Your task to perform on an android device: change timer sound Image 0: 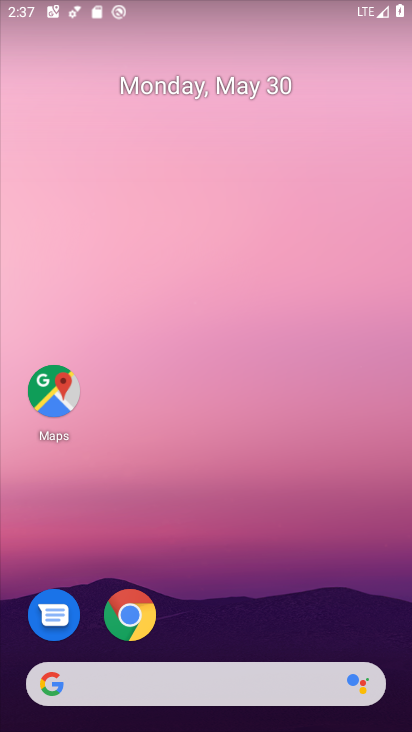
Step 0: drag from (246, 582) to (286, 40)
Your task to perform on an android device: change timer sound Image 1: 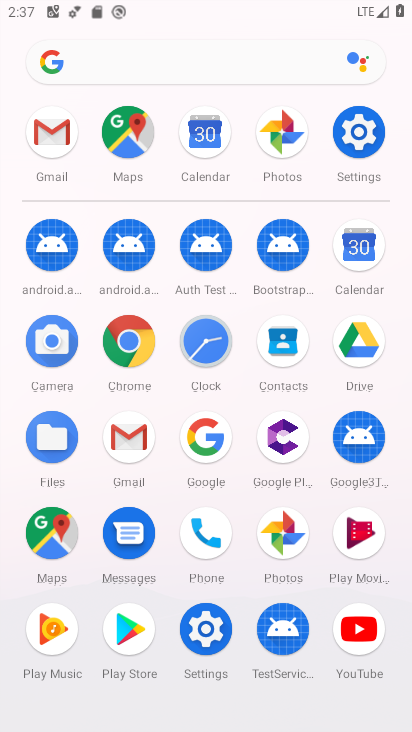
Step 1: click (350, 134)
Your task to perform on an android device: change timer sound Image 2: 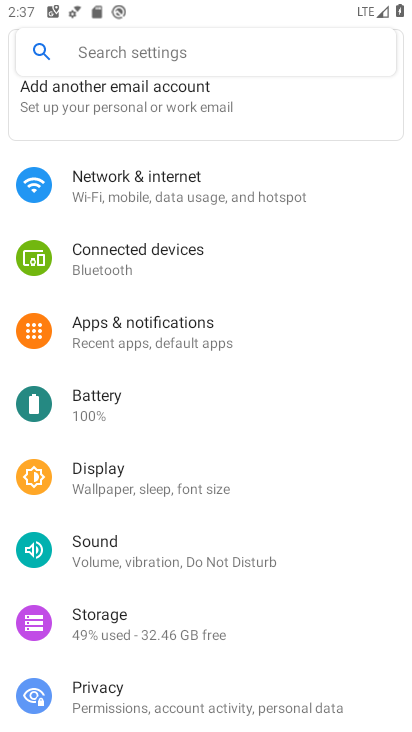
Step 2: press home button
Your task to perform on an android device: change timer sound Image 3: 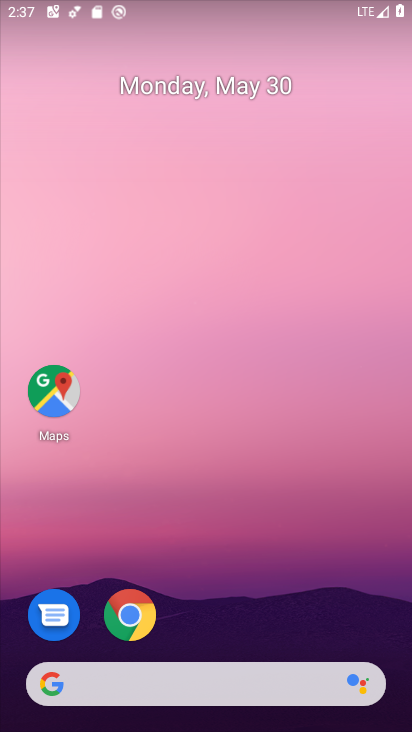
Step 3: drag from (239, 581) to (250, 1)
Your task to perform on an android device: change timer sound Image 4: 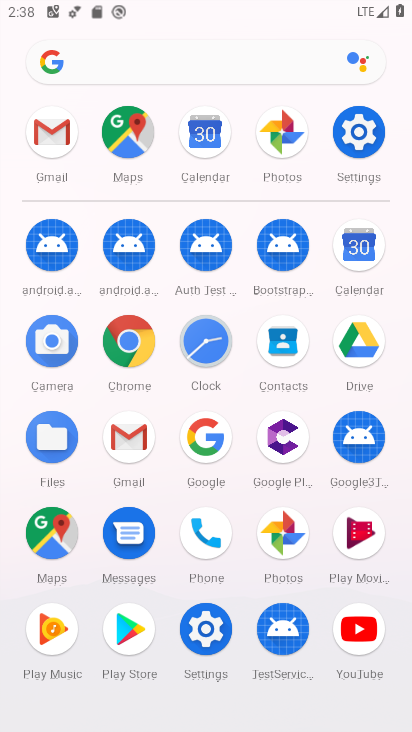
Step 4: click (216, 332)
Your task to perform on an android device: change timer sound Image 5: 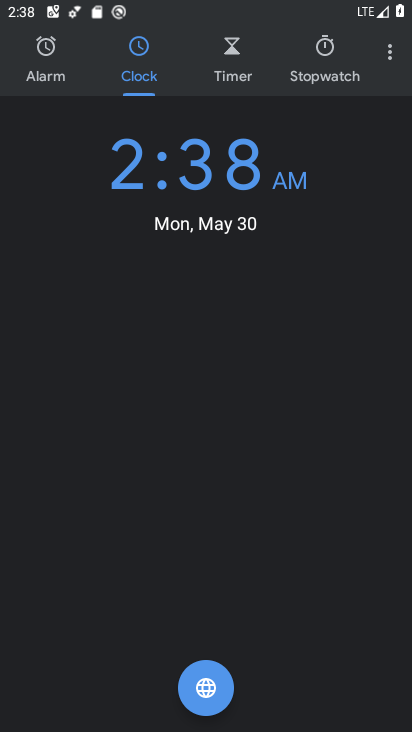
Step 5: click (243, 62)
Your task to perform on an android device: change timer sound Image 6: 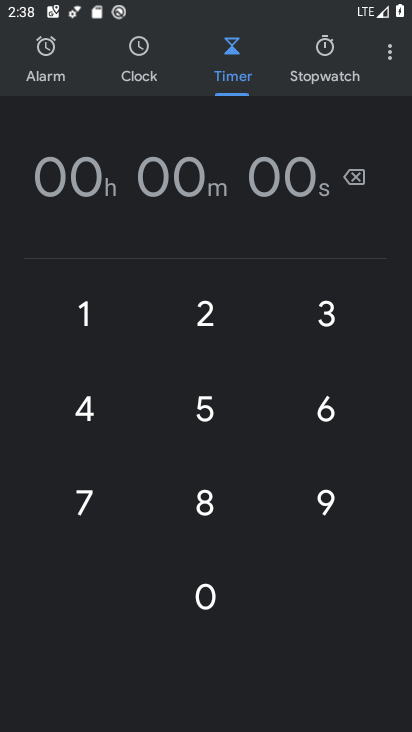
Step 6: click (385, 58)
Your task to perform on an android device: change timer sound Image 7: 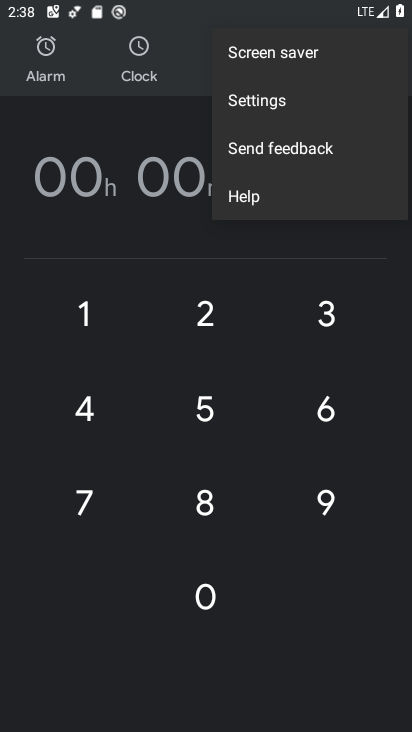
Step 7: click (330, 103)
Your task to perform on an android device: change timer sound Image 8: 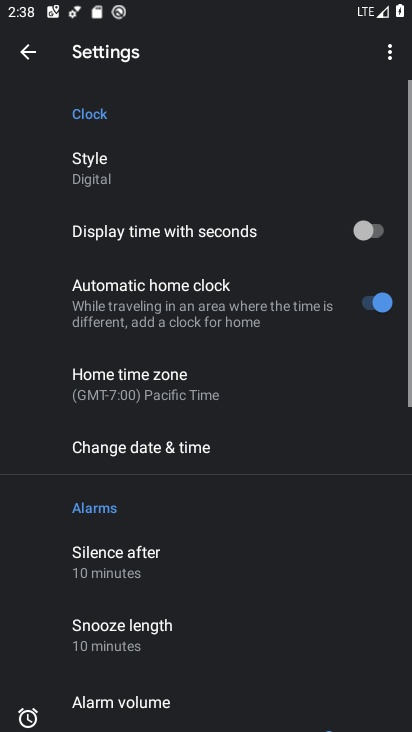
Step 8: drag from (249, 577) to (288, 120)
Your task to perform on an android device: change timer sound Image 9: 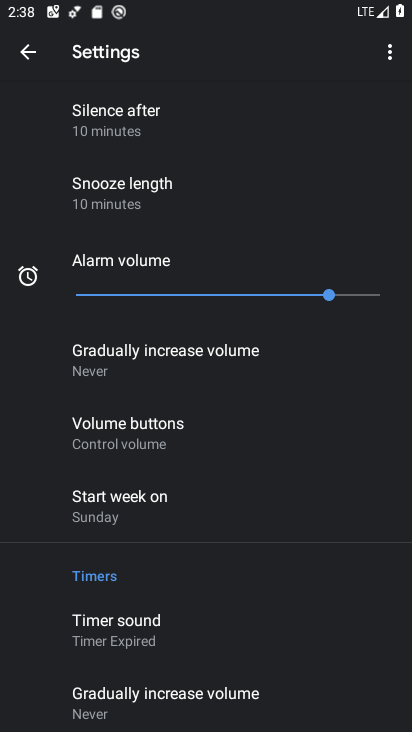
Step 9: click (202, 623)
Your task to perform on an android device: change timer sound Image 10: 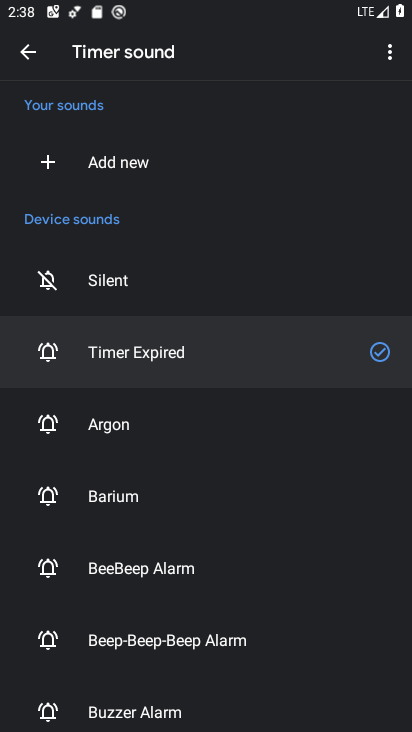
Step 10: click (114, 426)
Your task to perform on an android device: change timer sound Image 11: 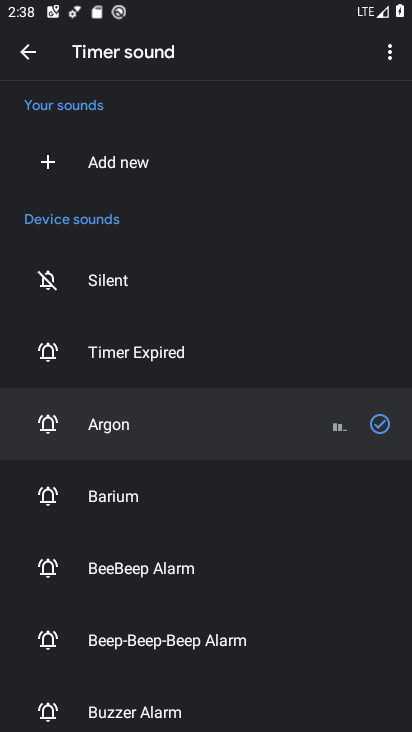
Step 11: task complete